Your task to perform on an android device: turn off wifi Image 0: 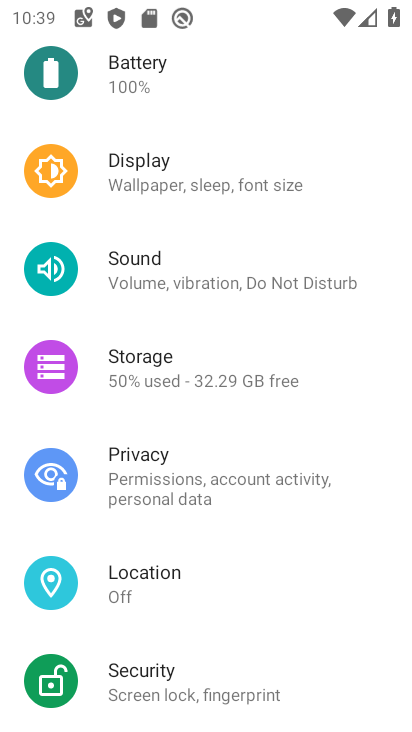
Step 0: drag from (203, 205) to (102, 693)
Your task to perform on an android device: turn off wifi Image 1: 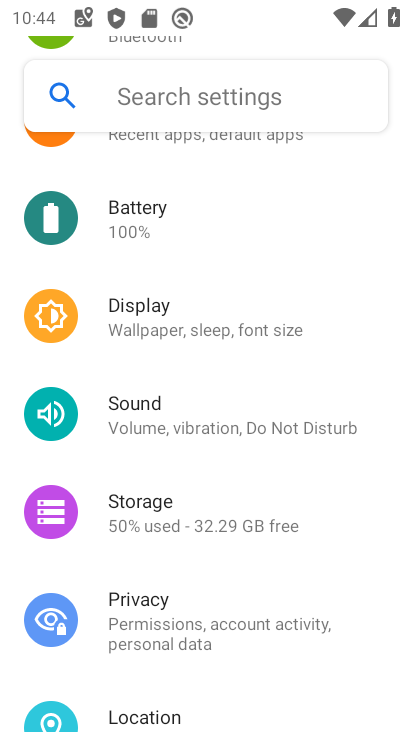
Step 1: drag from (242, 277) to (96, 669)
Your task to perform on an android device: turn off wifi Image 2: 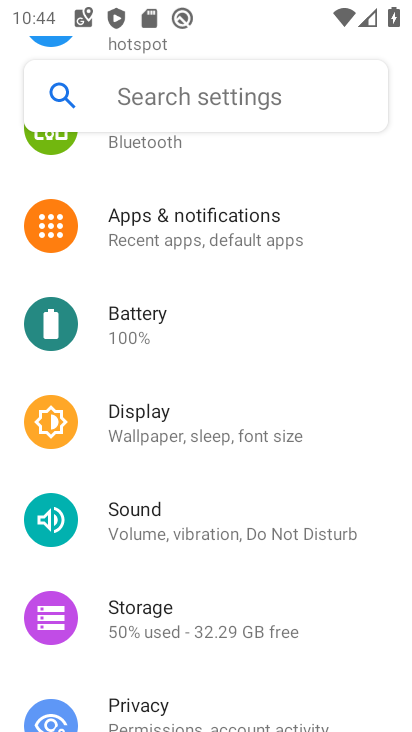
Step 2: drag from (258, 215) to (118, 696)
Your task to perform on an android device: turn off wifi Image 3: 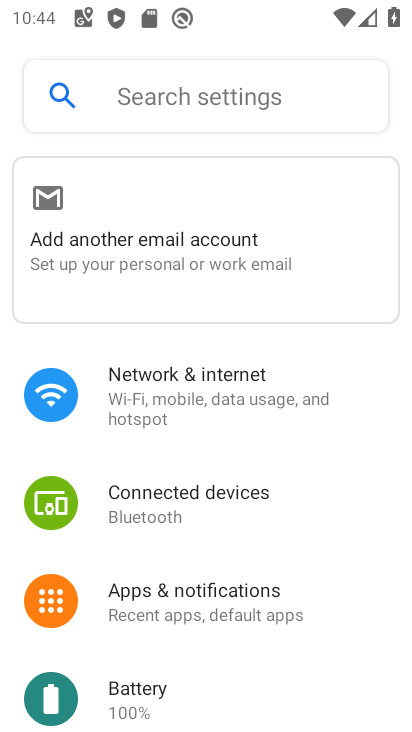
Step 3: drag from (310, 297) to (149, 699)
Your task to perform on an android device: turn off wifi Image 4: 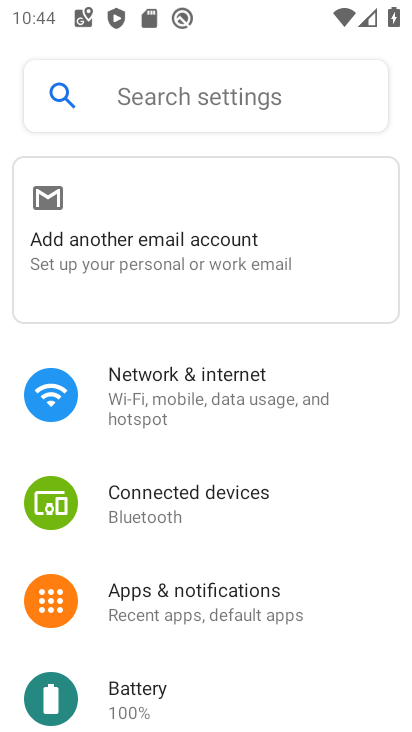
Step 4: click (341, 397)
Your task to perform on an android device: turn off wifi Image 5: 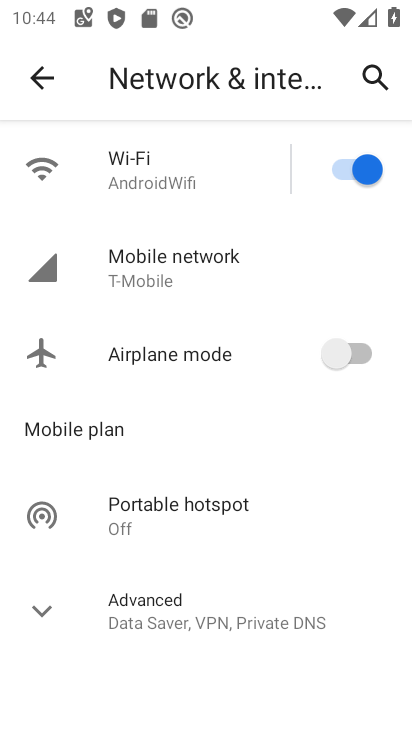
Step 5: click (366, 163)
Your task to perform on an android device: turn off wifi Image 6: 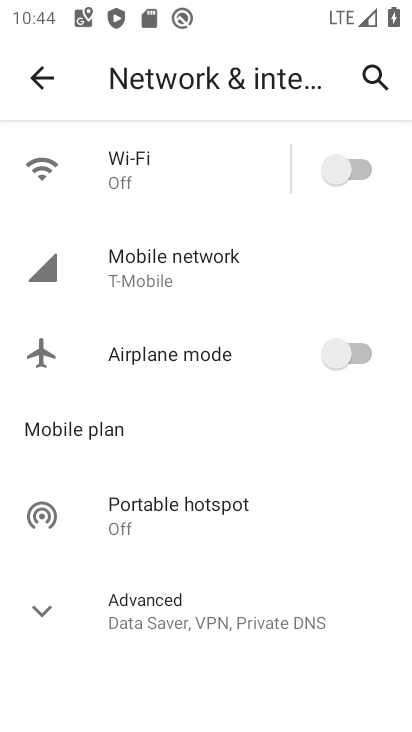
Step 6: task complete